Your task to perform on an android device: open app "Venmo" (install if not already installed) and go to login screen Image 0: 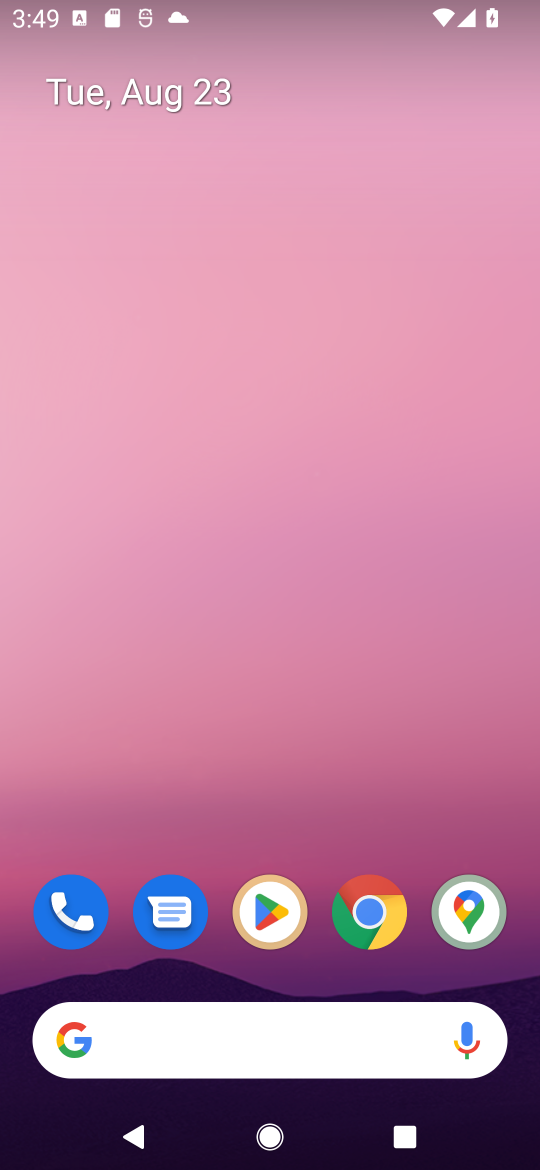
Step 0: drag from (239, 1026) to (341, 43)
Your task to perform on an android device: open app "Venmo" (install if not already installed) and go to login screen Image 1: 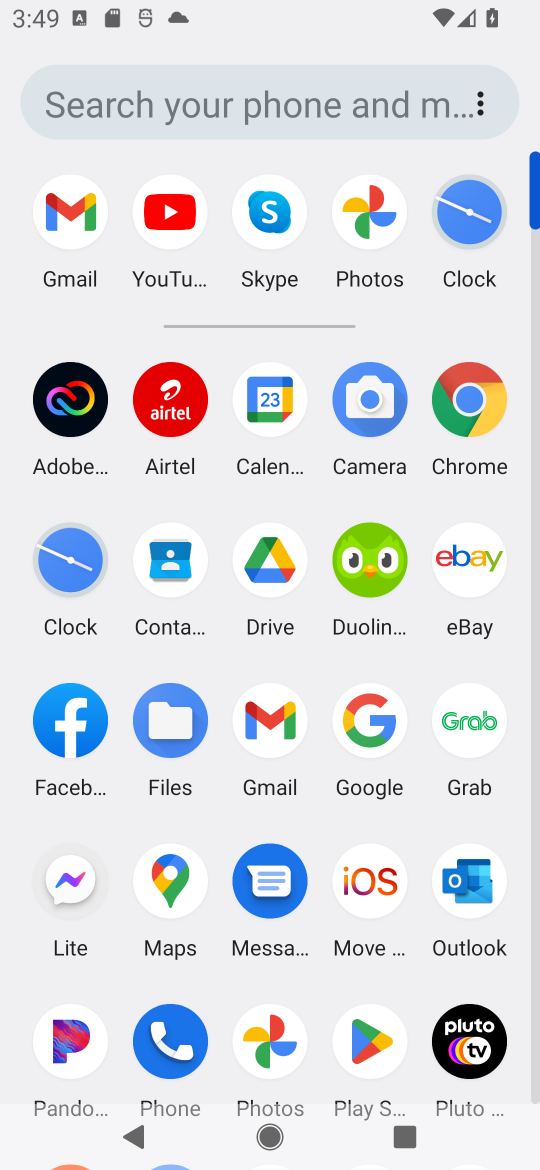
Step 1: click (370, 1049)
Your task to perform on an android device: open app "Venmo" (install if not already installed) and go to login screen Image 2: 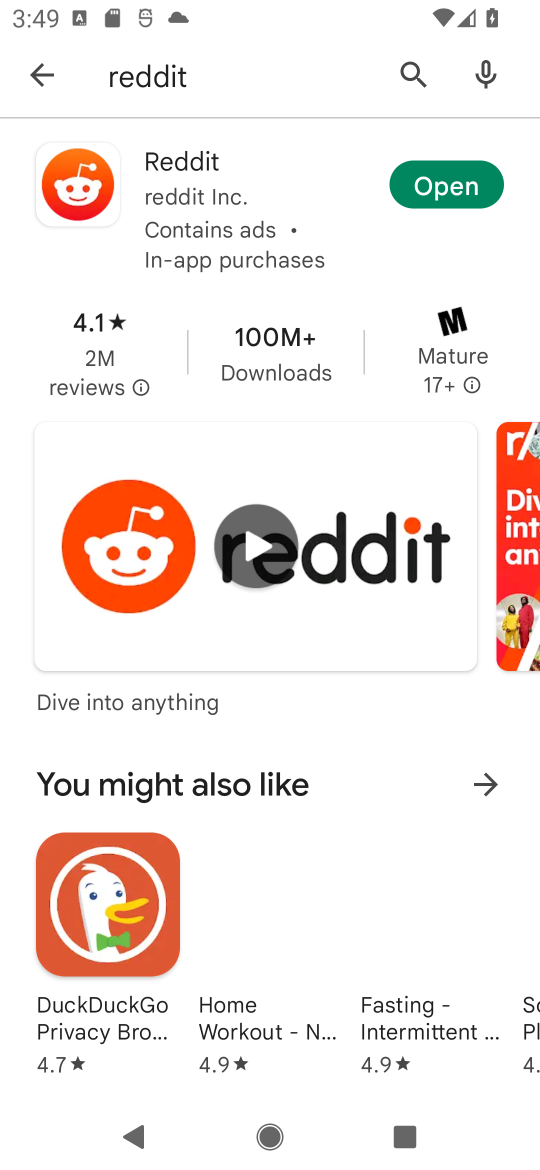
Step 2: press back button
Your task to perform on an android device: open app "Venmo" (install if not already installed) and go to login screen Image 3: 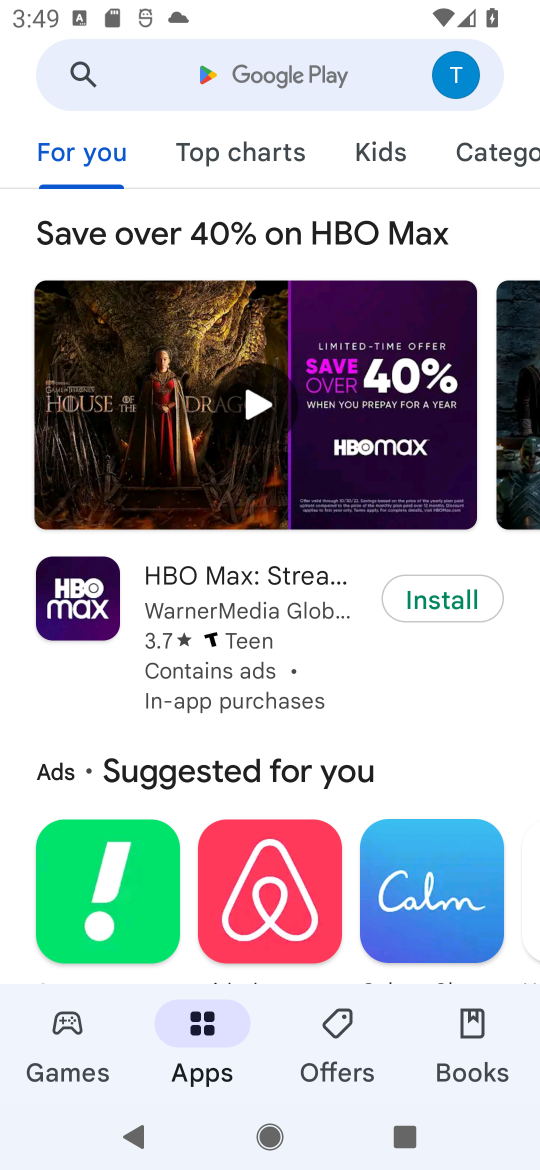
Step 3: click (305, 83)
Your task to perform on an android device: open app "Venmo" (install if not already installed) and go to login screen Image 4: 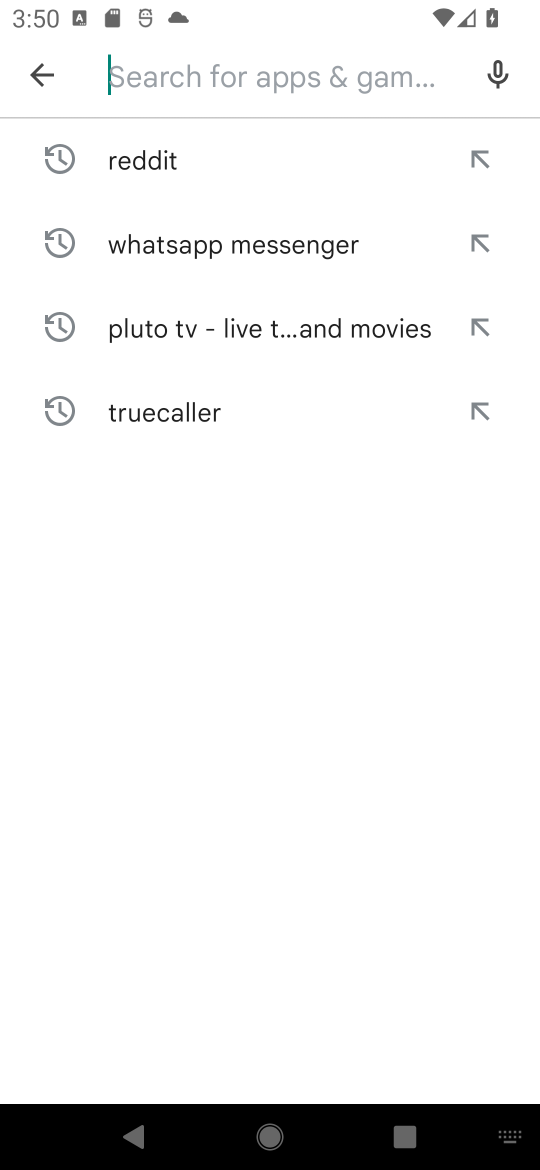
Step 4: type "Venmo"
Your task to perform on an android device: open app "Venmo" (install if not already installed) and go to login screen Image 5: 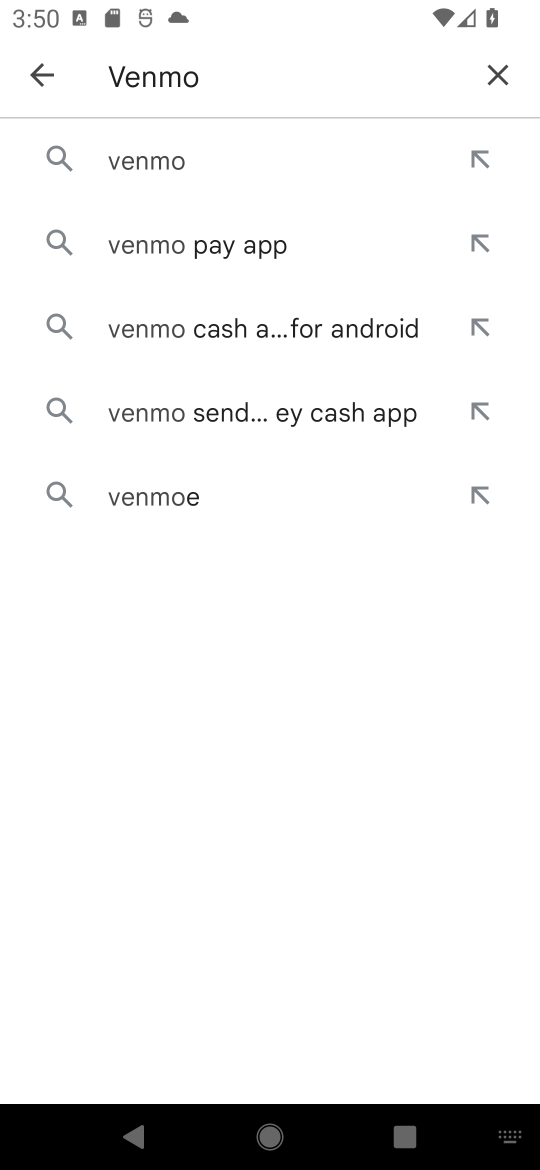
Step 5: click (159, 159)
Your task to perform on an android device: open app "Venmo" (install if not already installed) and go to login screen Image 6: 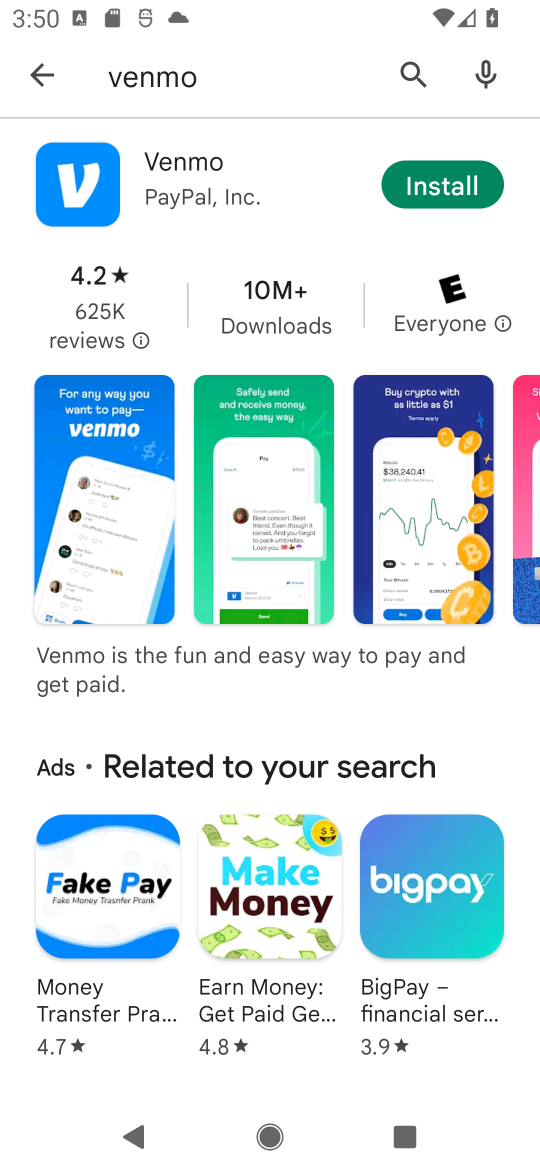
Step 6: click (445, 193)
Your task to perform on an android device: open app "Venmo" (install if not already installed) and go to login screen Image 7: 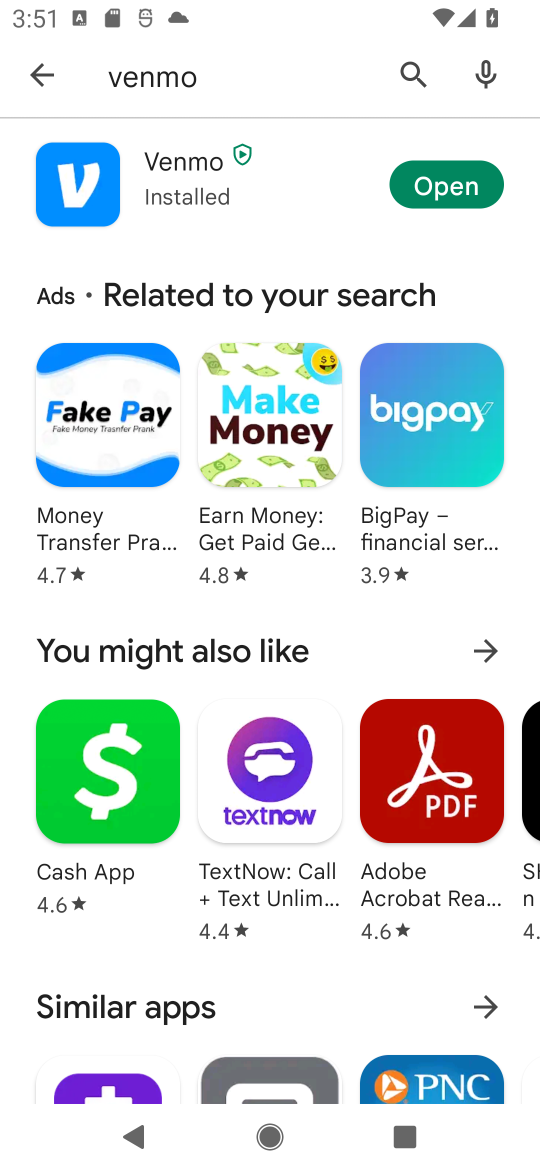
Step 7: click (441, 181)
Your task to perform on an android device: open app "Venmo" (install if not already installed) and go to login screen Image 8: 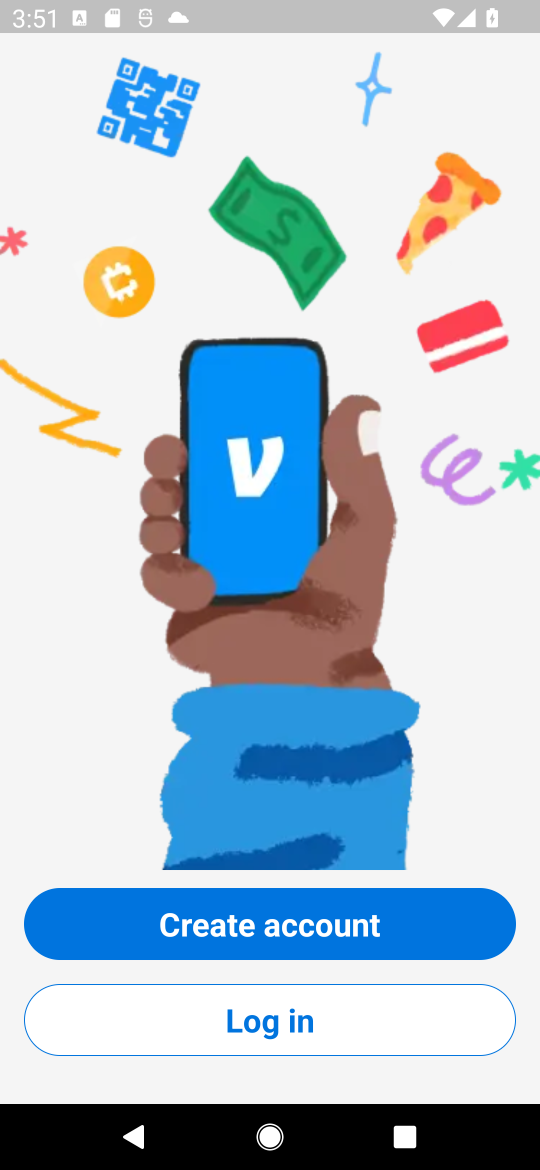
Step 8: click (286, 1026)
Your task to perform on an android device: open app "Venmo" (install if not already installed) and go to login screen Image 9: 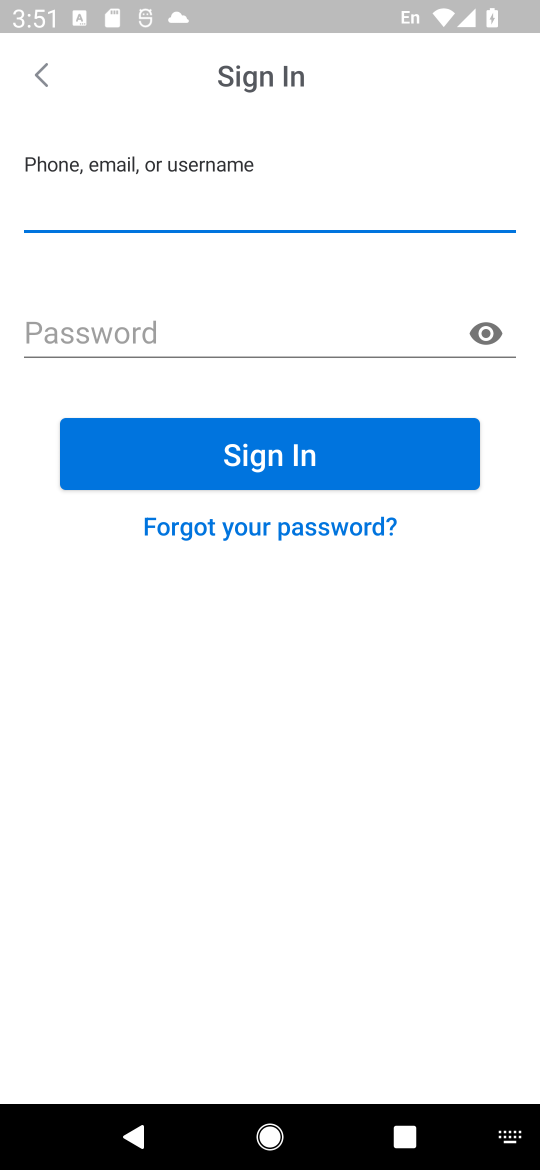
Step 9: task complete